Your task to perform on an android device: Go to CNN.com Image 0: 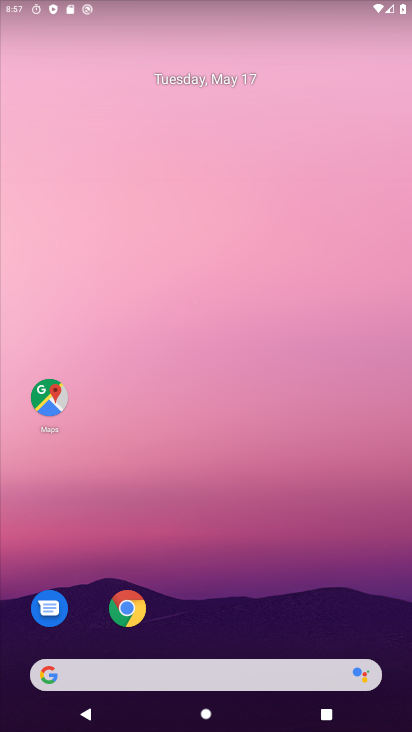
Step 0: drag from (322, 630) to (286, 114)
Your task to perform on an android device: Go to CNN.com Image 1: 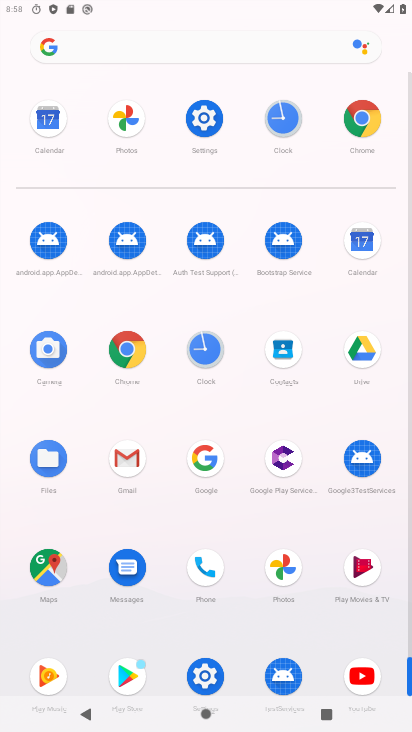
Step 1: click (137, 352)
Your task to perform on an android device: Go to CNN.com Image 2: 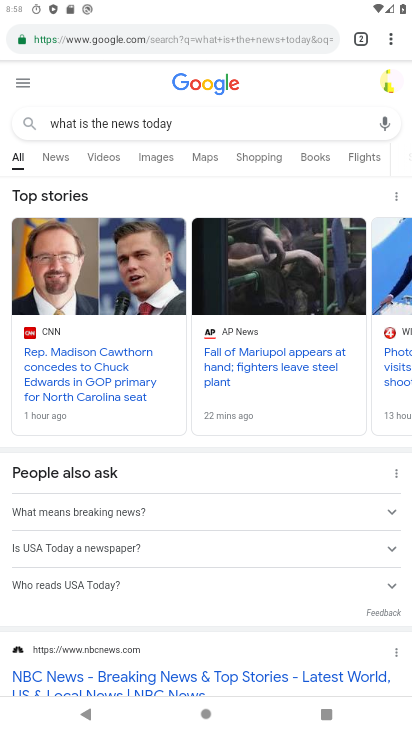
Step 2: click (182, 21)
Your task to perform on an android device: Go to CNN.com Image 3: 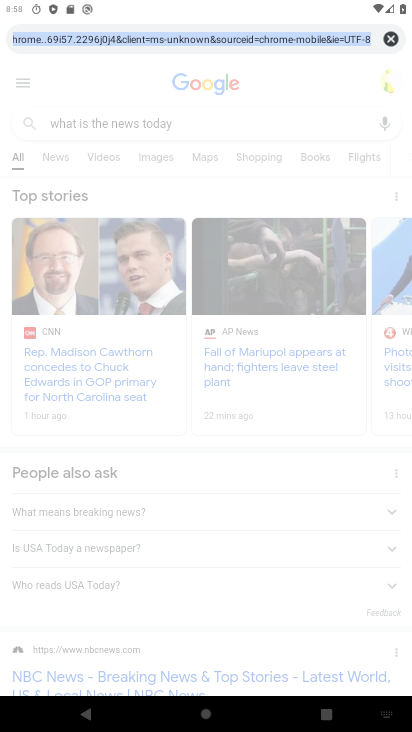
Step 3: click (396, 41)
Your task to perform on an android device: Go to CNN.com Image 4: 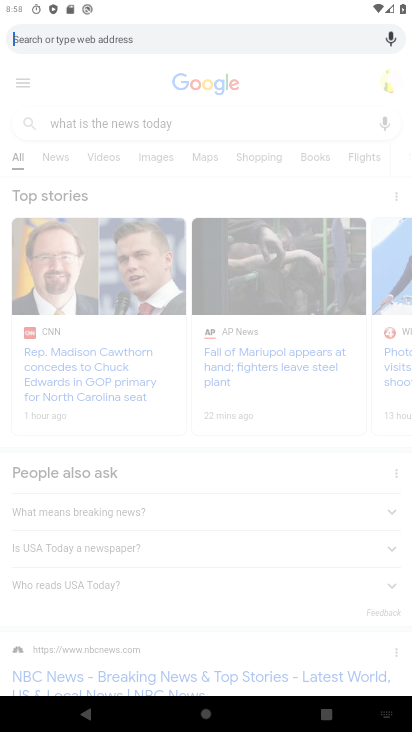
Step 4: type "cnn.com"
Your task to perform on an android device: Go to CNN.com Image 5: 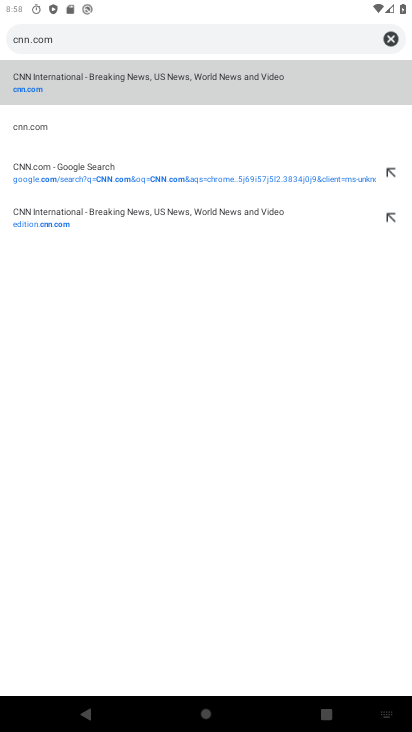
Step 5: click (156, 90)
Your task to perform on an android device: Go to CNN.com Image 6: 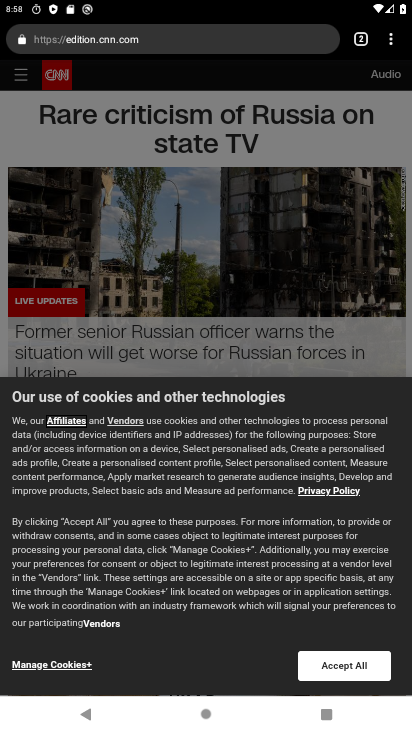
Step 6: task complete